Your task to perform on an android device: turn on bluetooth scan Image 0: 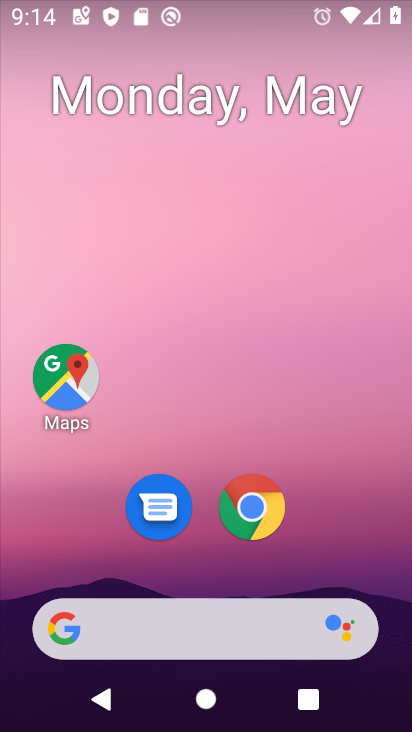
Step 0: drag from (199, 560) to (356, 0)
Your task to perform on an android device: turn on bluetooth scan Image 1: 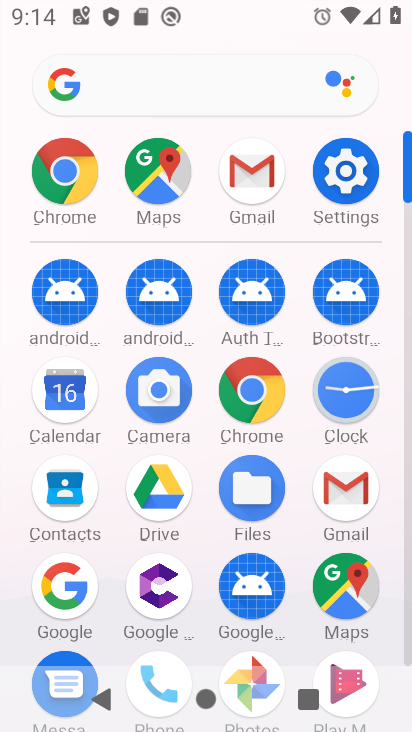
Step 1: click (361, 177)
Your task to perform on an android device: turn on bluetooth scan Image 2: 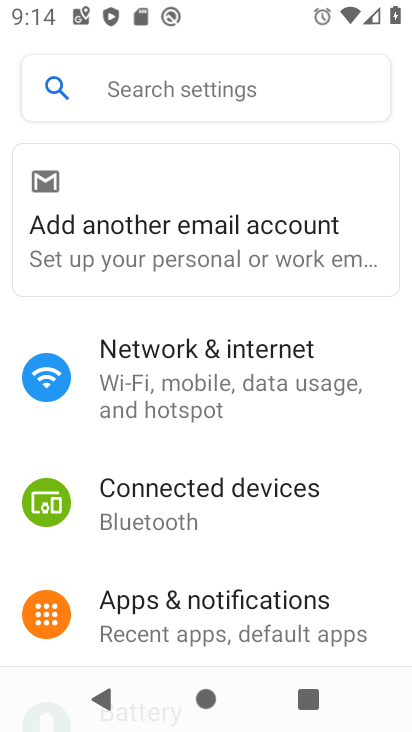
Step 2: drag from (205, 567) to (268, 274)
Your task to perform on an android device: turn on bluetooth scan Image 3: 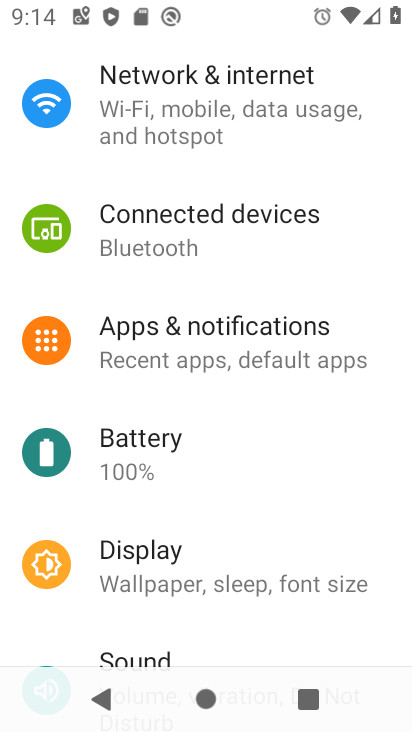
Step 3: drag from (188, 557) to (272, 134)
Your task to perform on an android device: turn on bluetooth scan Image 4: 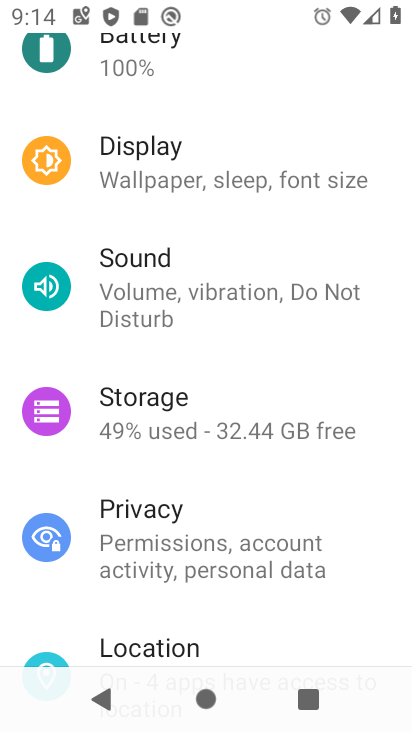
Step 4: drag from (202, 538) to (245, 288)
Your task to perform on an android device: turn on bluetooth scan Image 5: 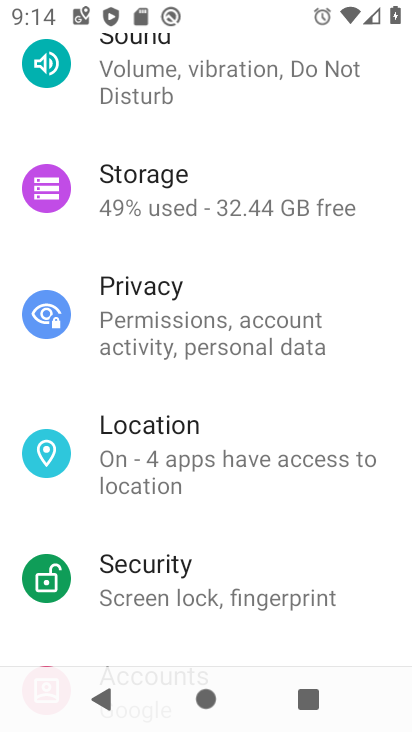
Step 5: click (195, 440)
Your task to perform on an android device: turn on bluetooth scan Image 6: 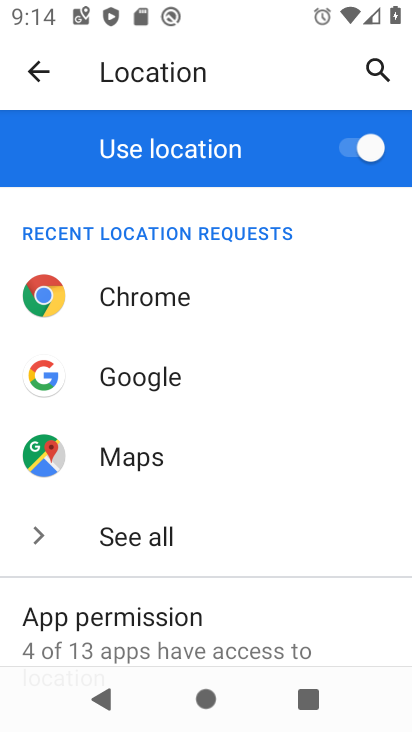
Step 6: drag from (202, 556) to (267, 224)
Your task to perform on an android device: turn on bluetooth scan Image 7: 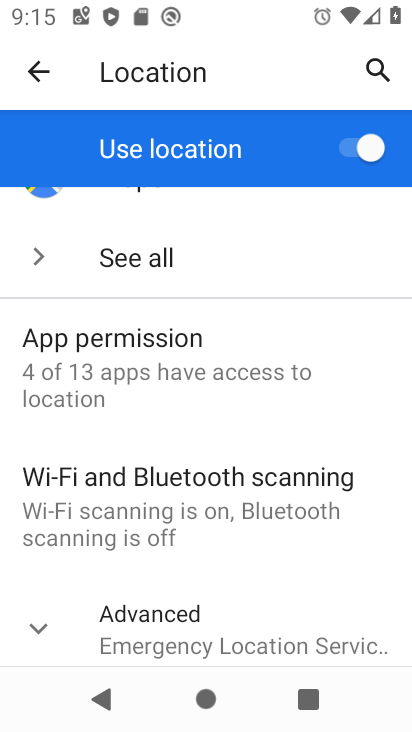
Step 7: click (173, 498)
Your task to perform on an android device: turn on bluetooth scan Image 8: 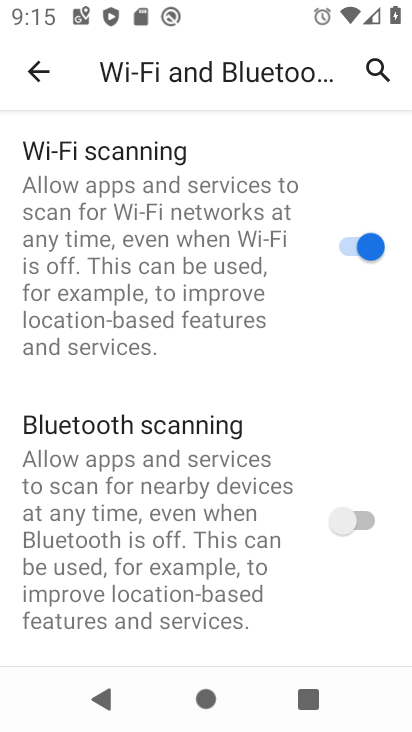
Step 8: click (371, 515)
Your task to perform on an android device: turn on bluetooth scan Image 9: 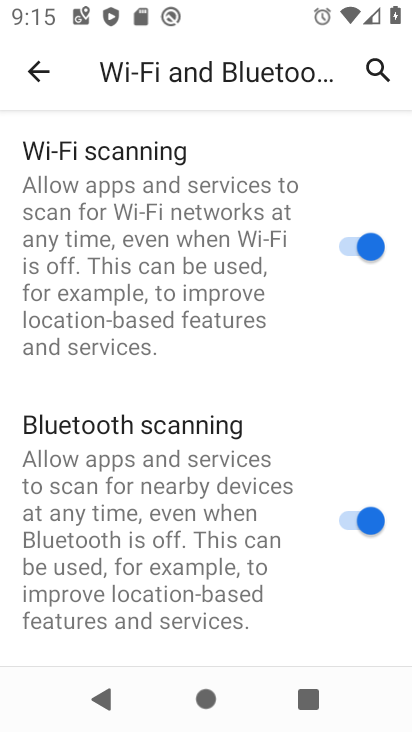
Step 9: task complete